Your task to perform on an android device: open chrome and create a bookmark for the current page Image 0: 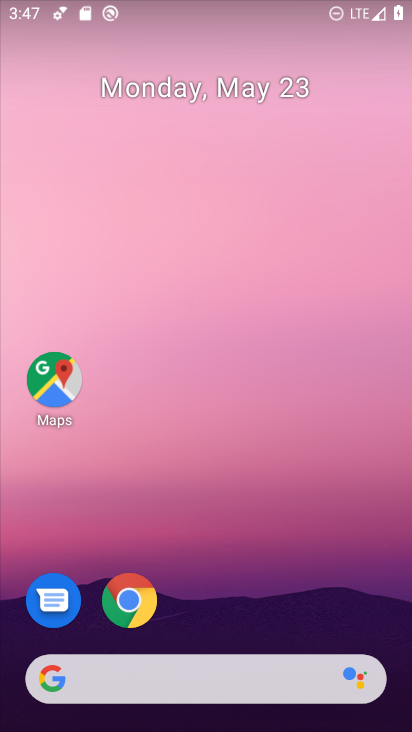
Step 0: click (137, 610)
Your task to perform on an android device: open chrome and create a bookmark for the current page Image 1: 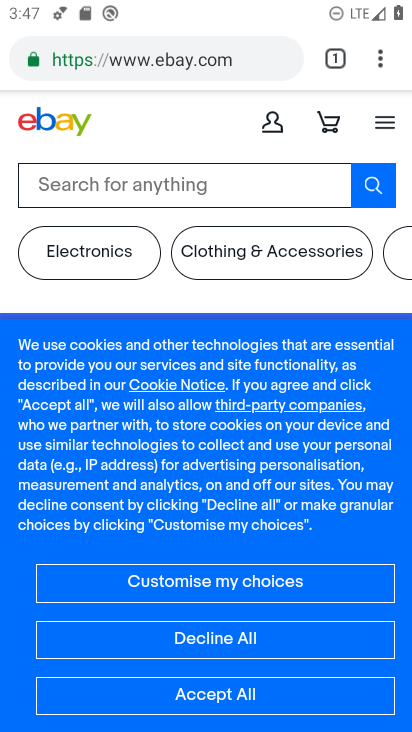
Step 1: click (381, 62)
Your task to perform on an android device: open chrome and create a bookmark for the current page Image 2: 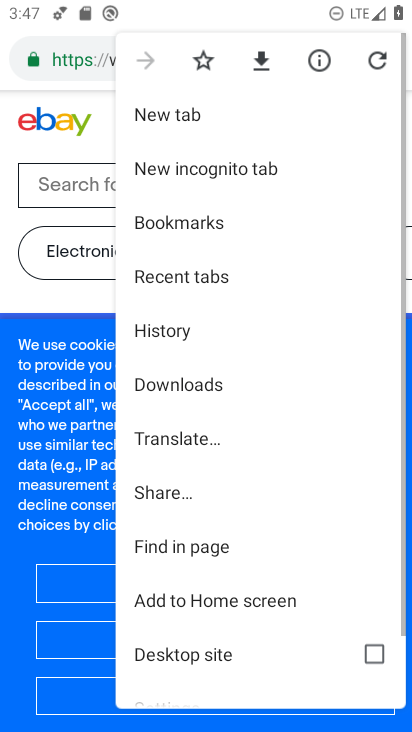
Step 2: click (207, 61)
Your task to perform on an android device: open chrome and create a bookmark for the current page Image 3: 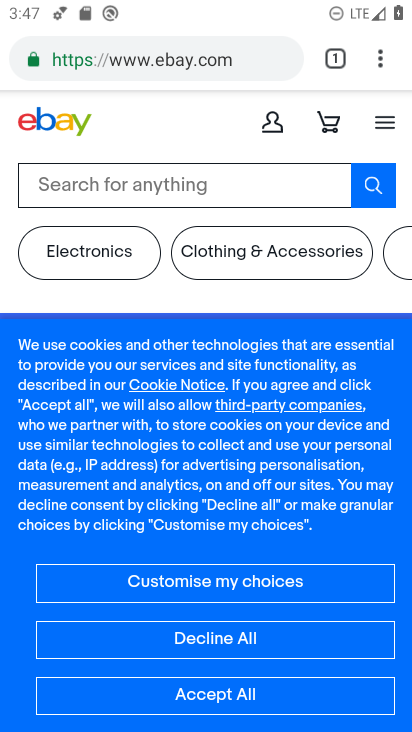
Step 3: task complete